Your task to perform on an android device: turn on showing notifications on the lock screen Image 0: 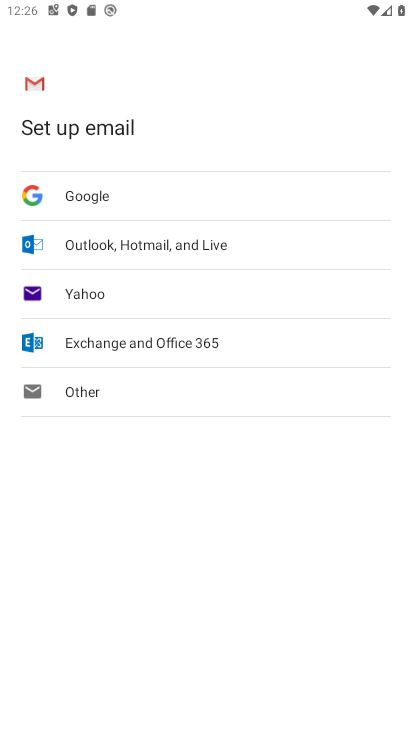
Step 0: press home button
Your task to perform on an android device: turn on showing notifications on the lock screen Image 1: 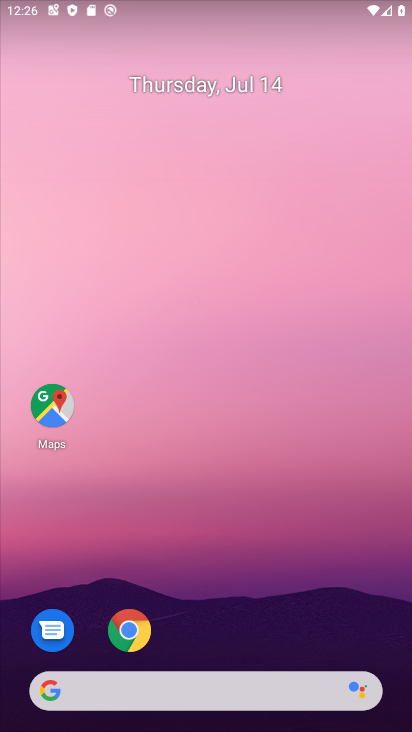
Step 1: drag from (124, 673) to (169, 330)
Your task to perform on an android device: turn on showing notifications on the lock screen Image 2: 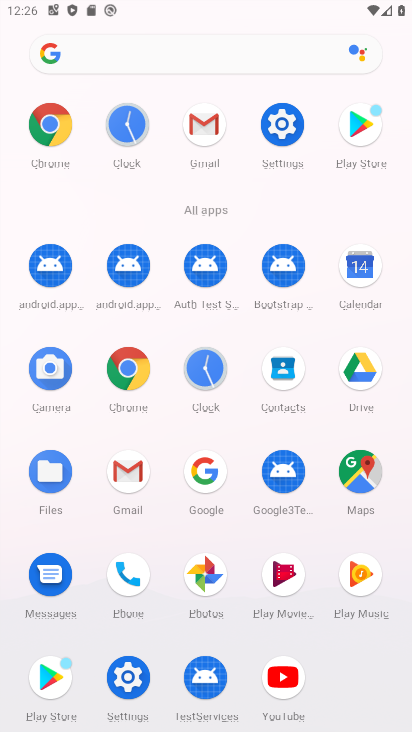
Step 2: click (278, 121)
Your task to perform on an android device: turn on showing notifications on the lock screen Image 3: 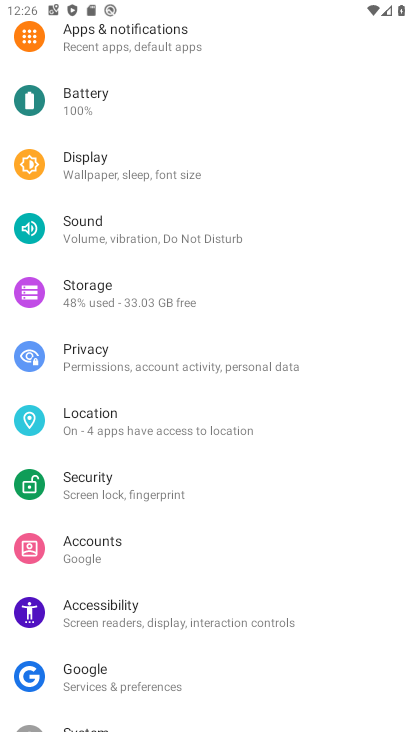
Step 3: click (102, 360)
Your task to perform on an android device: turn on showing notifications on the lock screen Image 4: 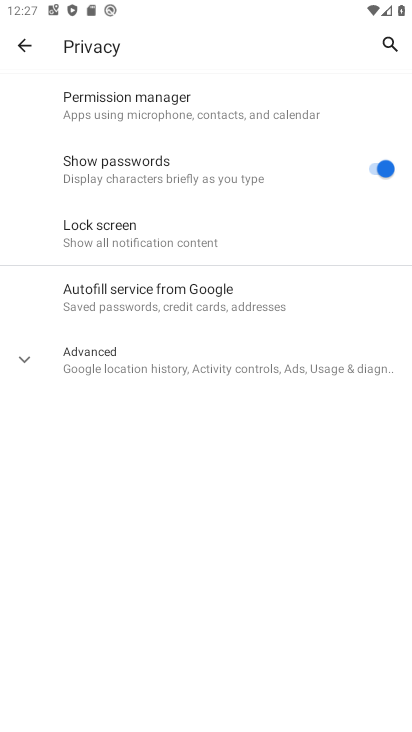
Step 4: click (96, 224)
Your task to perform on an android device: turn on showing notifications on the lock screen Image 5: 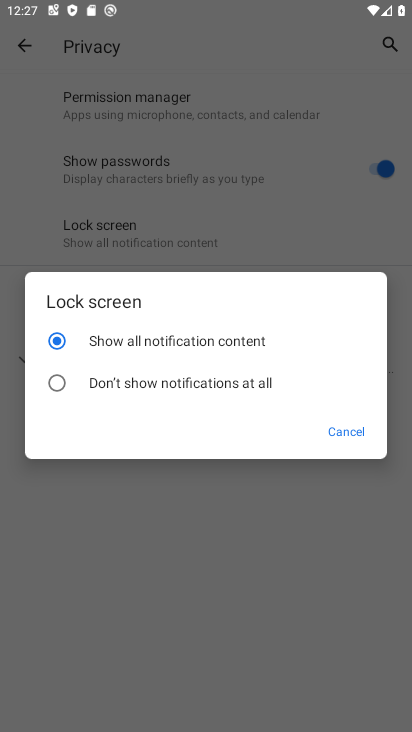
Step 5: click (77, 378)
Your task to perform on an android device: turn on showing notifications on the lock screen Image 6: 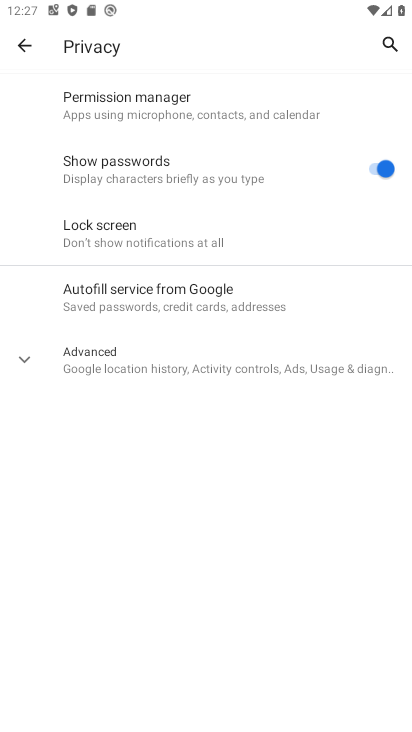
Step 6: click (132, 228)
Your task to perform on an android device: turn on showing notifications on the lock screen Image 7: 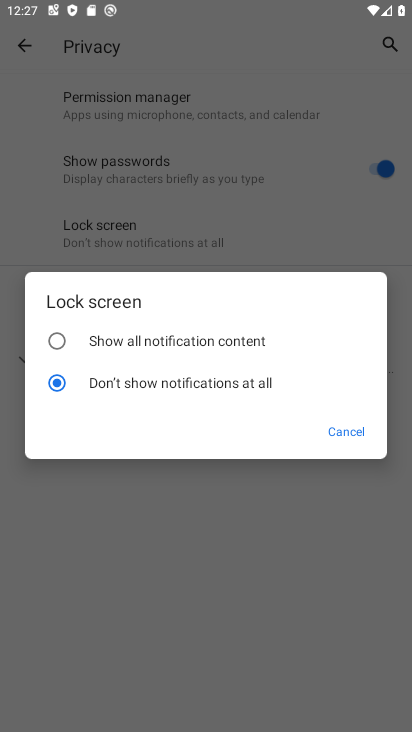
Step 7: click (119, 343)
Your task to perform on an android device: turn on showing notifications on the lock screen Image 8: 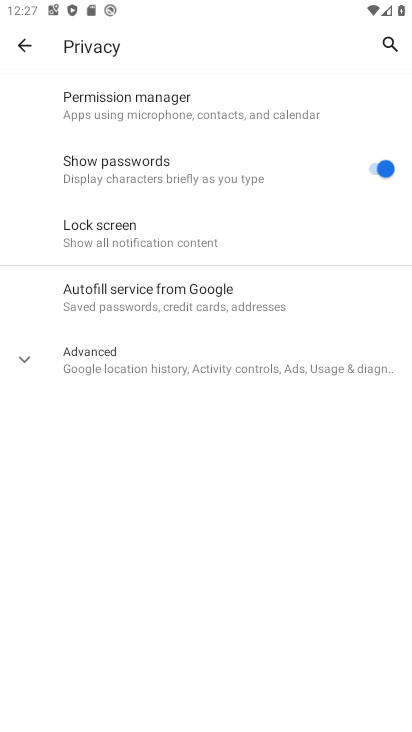
Step 8: task complete